Your task to perform on an android device: Search for Mexican restaurants on Maps Image 0: 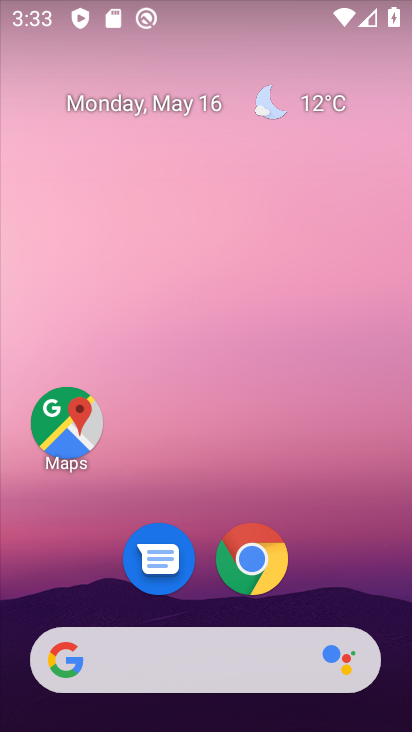
Step 0: click (52, 429)
Your task to perform on an android device: Search for Mexican restaurants on Maps Image 1: 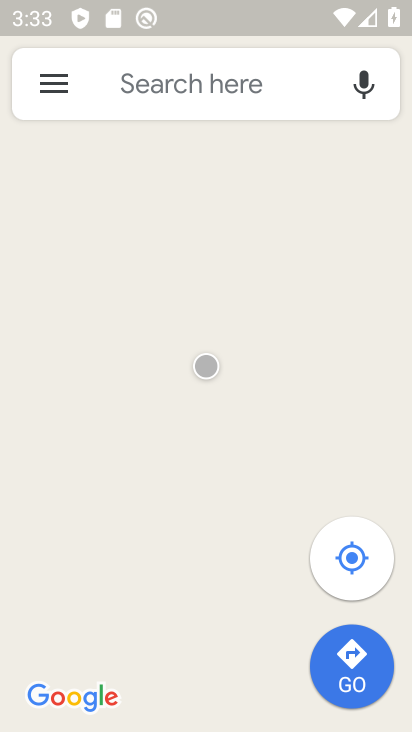
Step 1: click (111, 89)
Your task to perform on an android device: Search for Mexican restaurants on Maps Image 2: 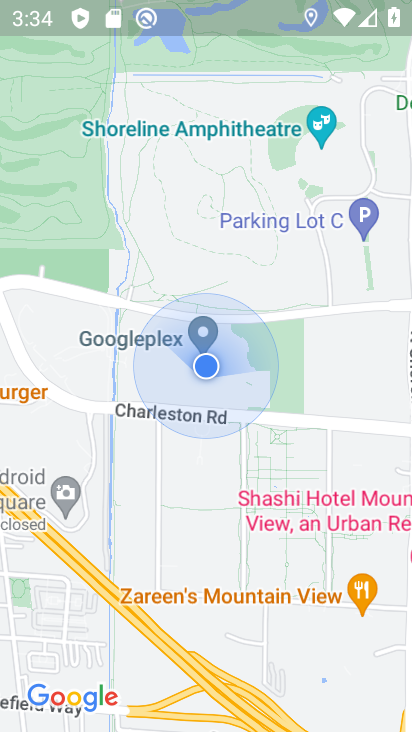
Step 2: type "mexican"
Your task to perform on an android device: Search for Mexican restaurants on Maps Image 3: 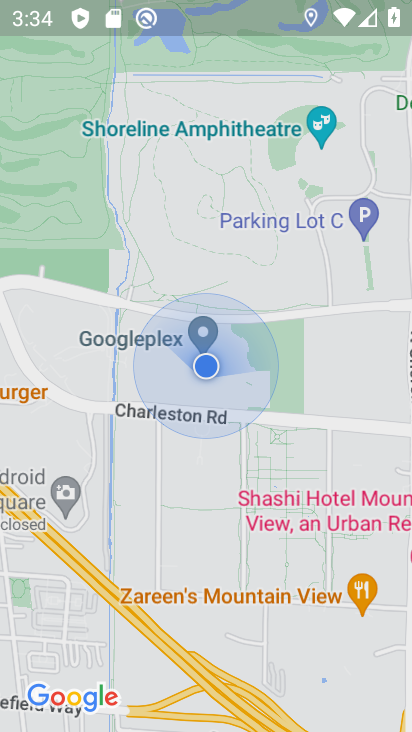
Step 3: drag from (241, 259) to (233, 372)
Your task to perform on an android device: Search for Mexican restaurants on Maps Image 4: 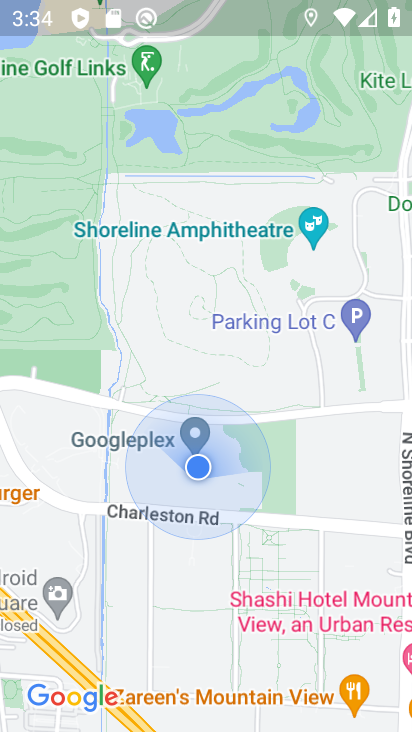
Step 4: press back button
Your task to perform on an android device: Search for Mexican restaurants on Maps Image 5: 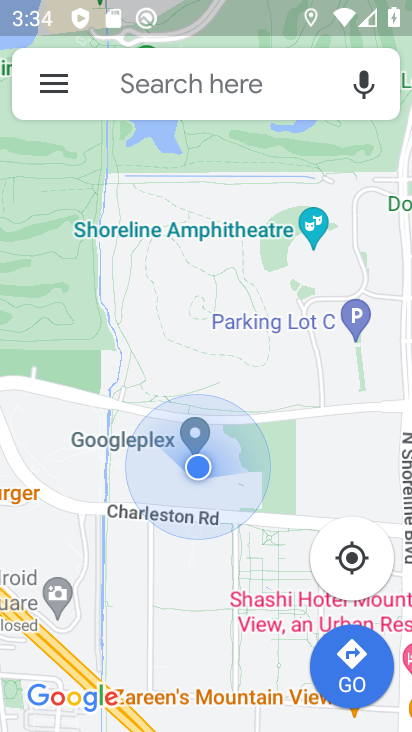
Step 5: click (161, 89)
Your task to perform on an android device: Search for Mexican restaurants on Maps Image 6: 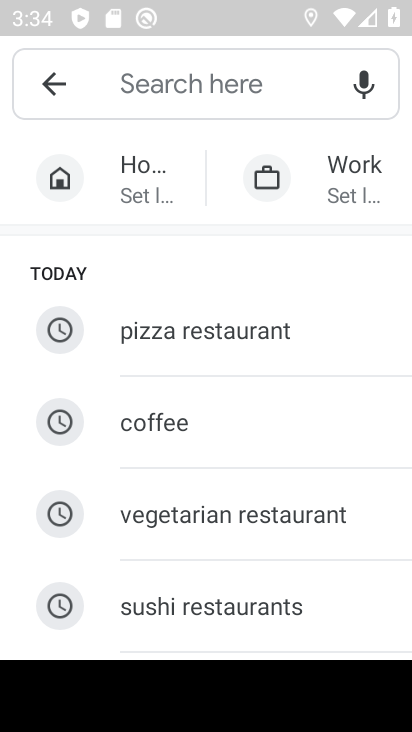
Step 6: drag from (285, 479) to (265, 210)
Your task to perform on an android device: Search for Mexican restaurants on Maps Image 7: 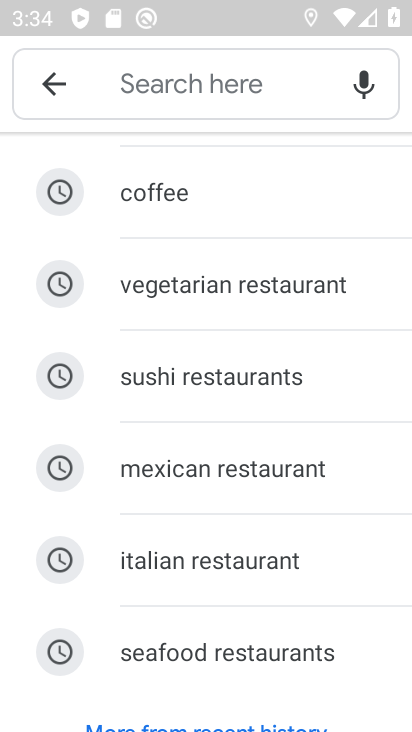
Step 7: click (214, 457)
Your task to perform on an android device: Search for Mexican restaurants on Maps Image 8: 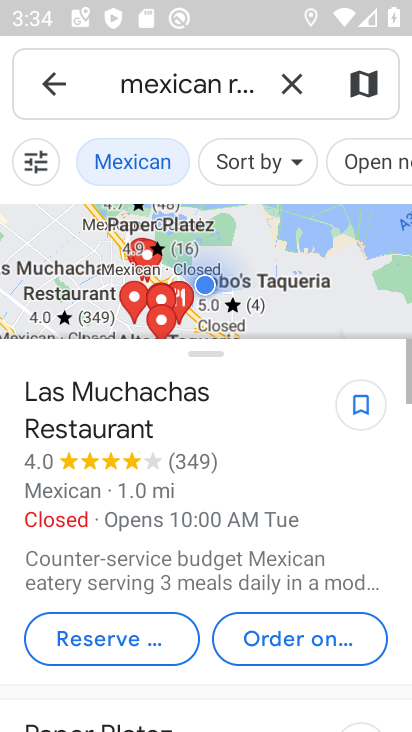
Step 8: task complete